Your task to perform on an android device: find which apps use the phone's location Image 0: 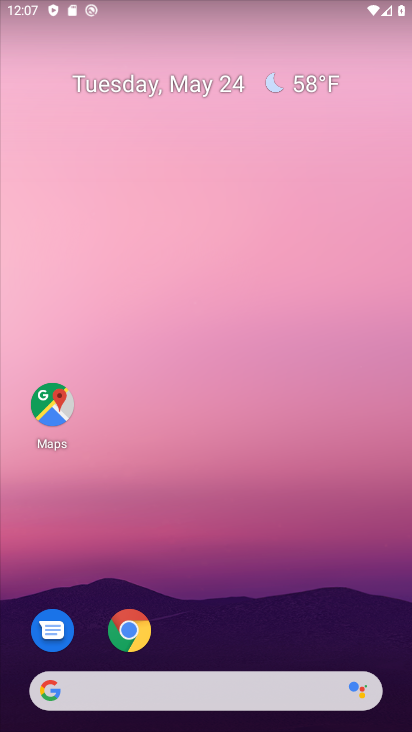
Step 0: drag from (261, 623) to (199, 122)
Your task to perform on an android device: find which apps use the phone's location Image 1: 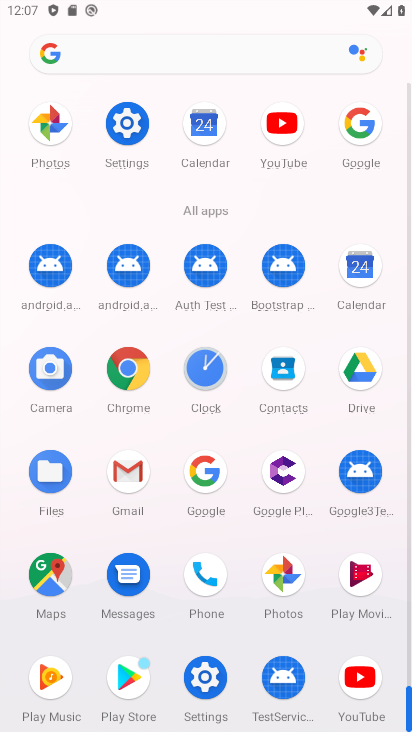
Step 1: click (208, 679)
Your task to perform on an android device: find which apps use the phone's location Image 2: 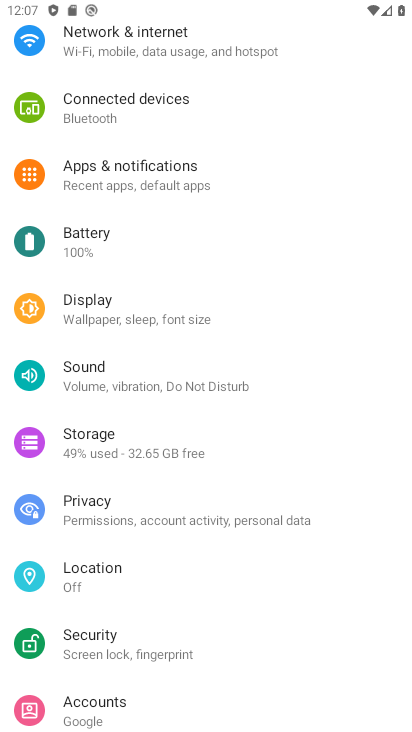
Step 2: click (87, 563)
Your task to perform on an android device: find which apps use the phone's location Image 3: 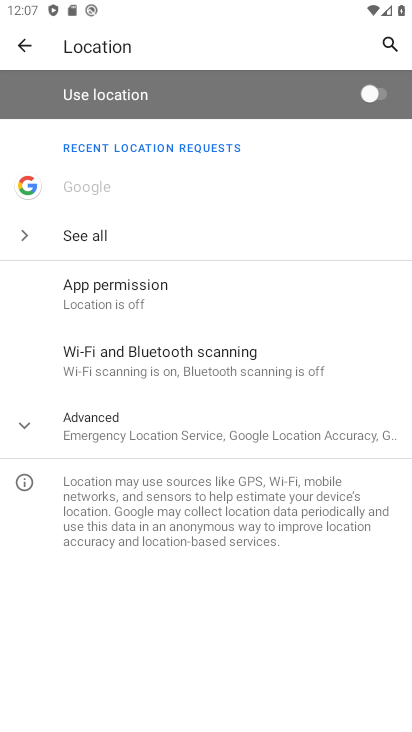
Step 3: click (121, 293)
Your task to perform on an android device: find which apps use the phone's location Image 4: 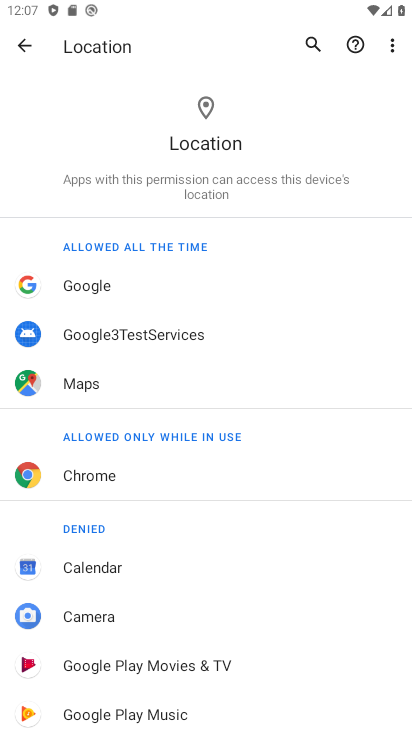
Step 4: click (79, 383)
Your task to perform on an android device: find which apps use the phone's location Image 5: 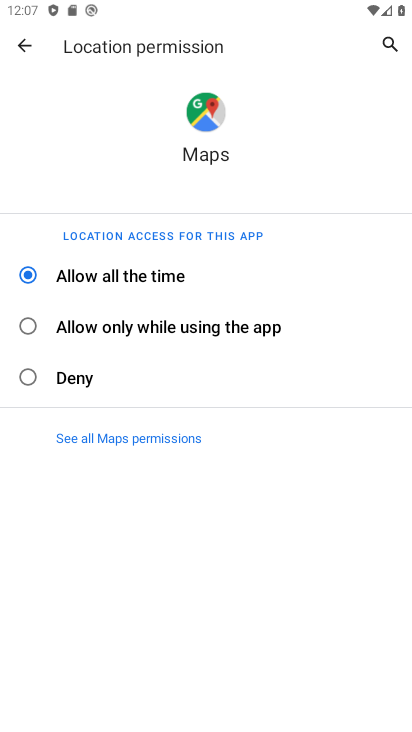
Step 5: task complete